Your task to perform on an android device: see creations saved in the google photos Image 0: 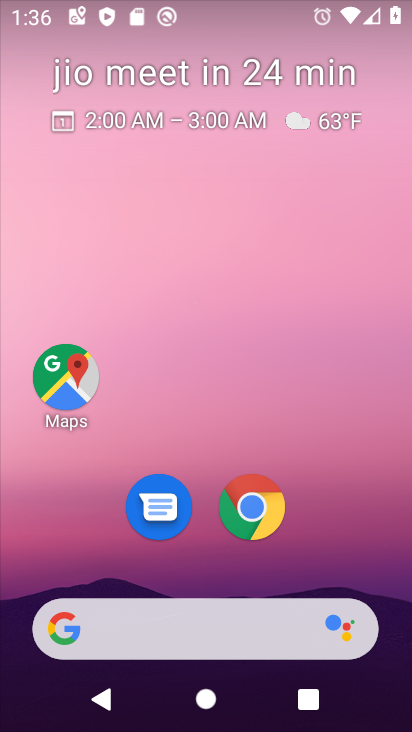
Step 0: drag from (211, 423) to (272, 45)
Your task to perform on an android device: see creations saved in the google photos Image 1: 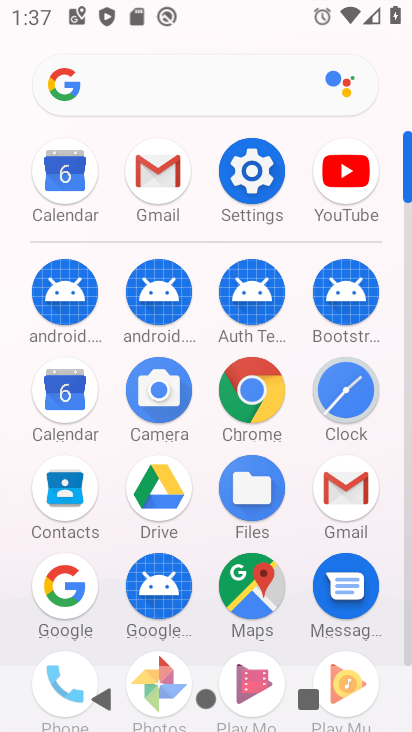
Step 1: drag from (214, 538) to (228, 451)
Your task to perform on an android device: see creations saved in the google photos Image 2: 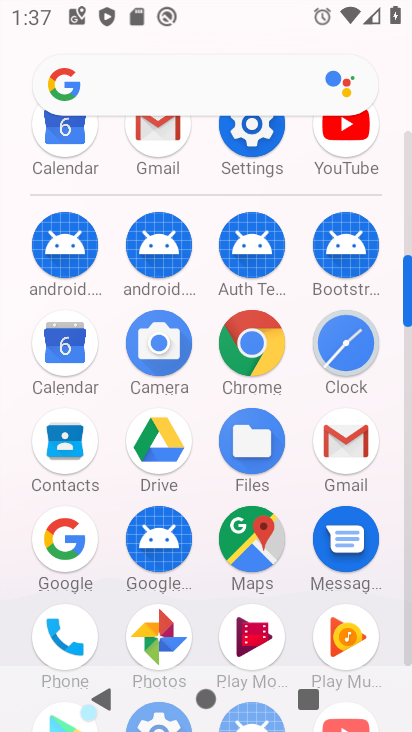
Step 2: click (164, 611)
Your task to perform on an android device: see creations saved in the google photos Image 3: 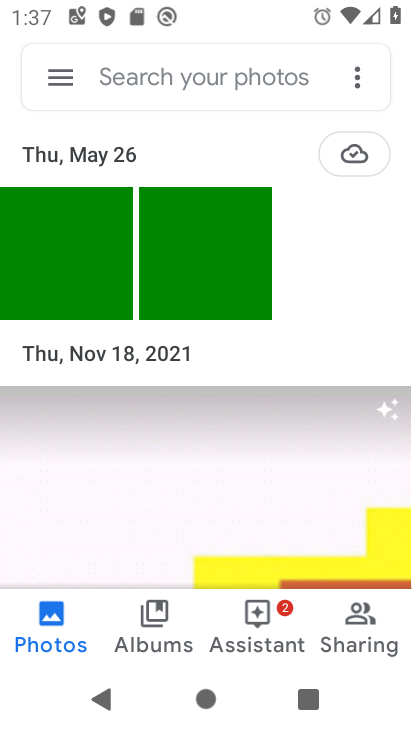
Step 3: click (247, 75)
Your task to perform on an android device: see creations saved in the google photos Image 4: 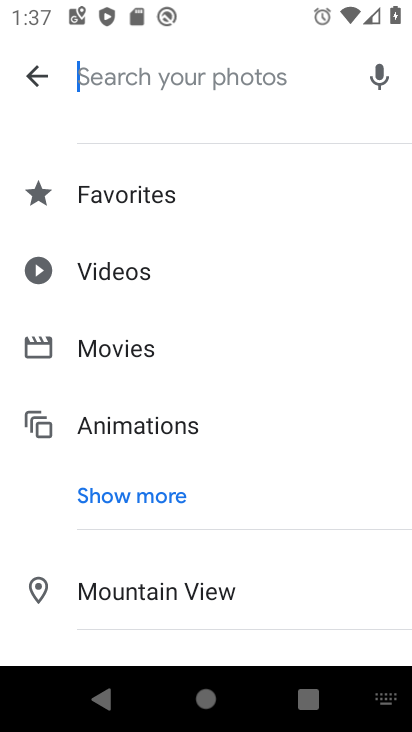
Step 4: click (158, 494)
Your task to perform on an android device: see creations saved in the google photos Image 5: 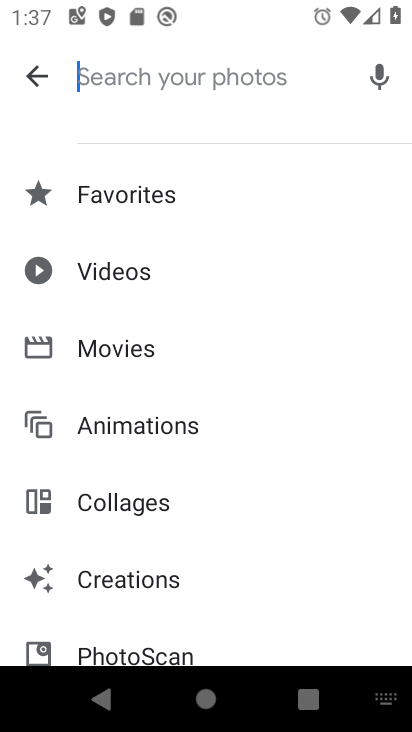
Step 5: click (132, 566)
Your task to perform on an android device: see creations saved in the google photos Image 6: 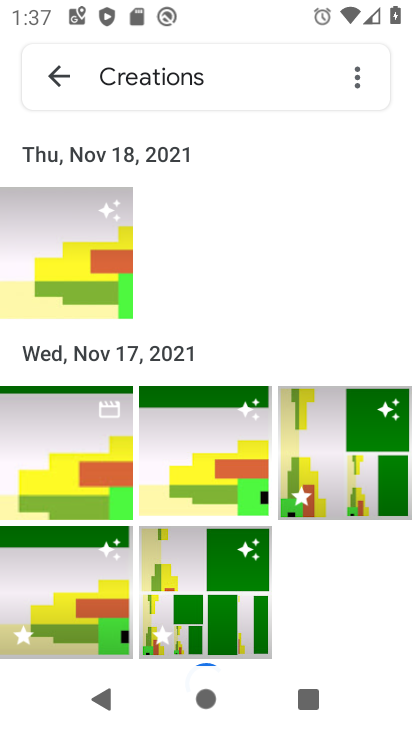
Step 6: task complete